Your task to perform on an android device: set default search engine in the chrome app Image 0: 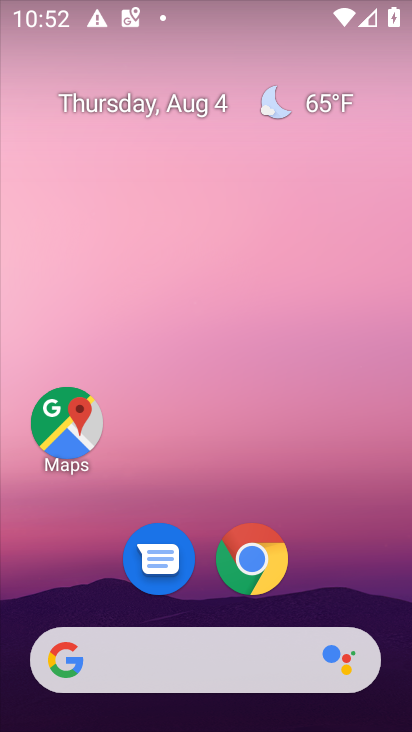
Step 0: click (242, 585)
Your task to perform on an android device: set default search engine in the chrome app Image 1: 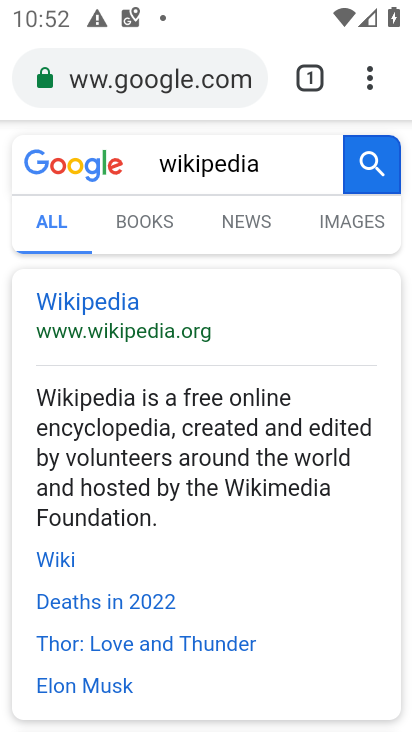
Step 1: drag from (365, 80) to (136, 619)
Your task to perform on an android device: set default search engine in the chrome app Image 2: 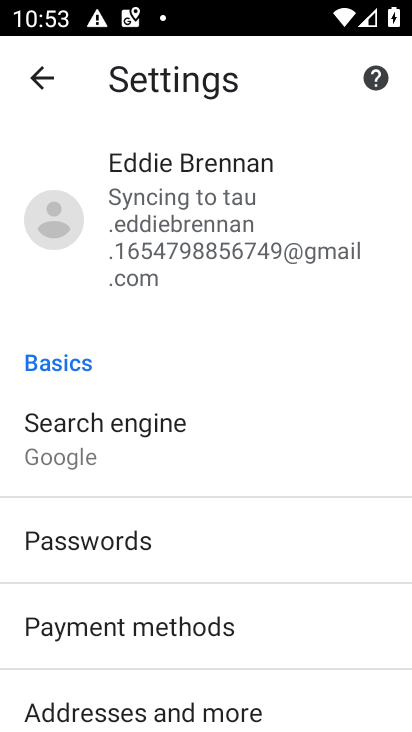
Step 2: drag from (146, 686) to (176, 112)
Your task to perform on an android device: set default search engine in the chrome app Image 3: 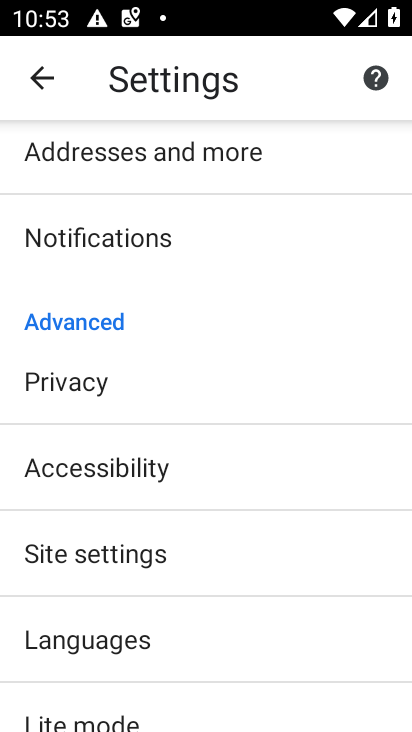
Step 3: drag from (142, 293) to (122, 678)
Your task to perform on an android device: set default search engine in the chrome app Image 4: 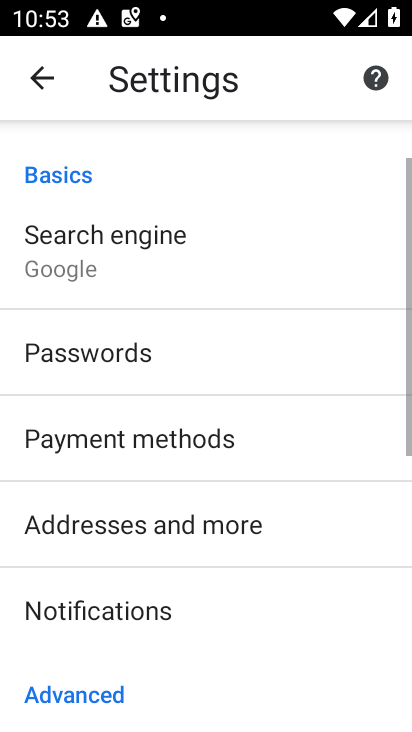
Step 4: click (119, 283)
Your task to perform on an android device: set default search engine in the chrome app Image 5: 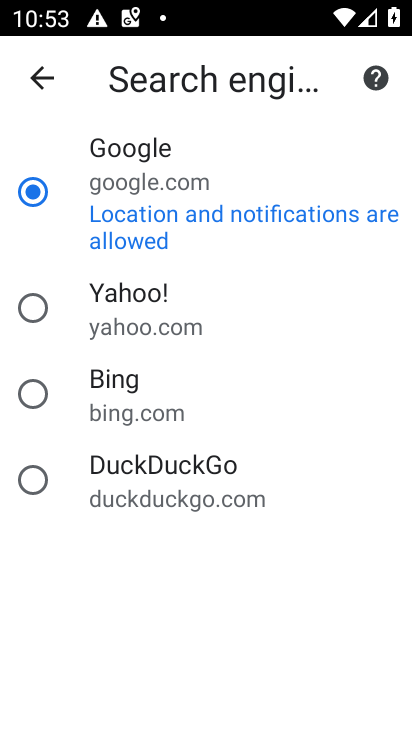
Step 5: click (165, 478)
Your task to perform on an android device: set default search engine in the chrome app Image 6: 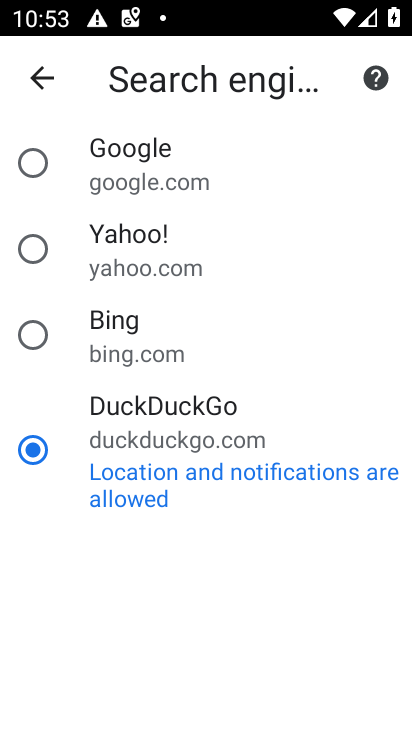
Step 6: task complete